Your task to perform on an android device: Add macbook pro 15 inch to the cart on target.com Image 0: 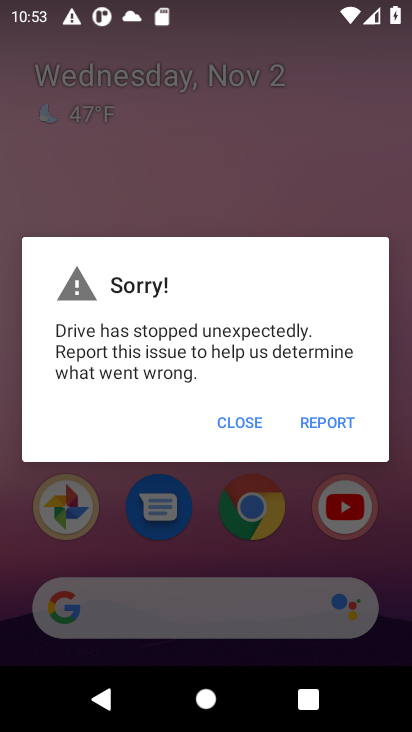
Step 0: press home button
Your task to perform on an android device: Add macbook pro 15 inch to the cart on target.com Image 1: 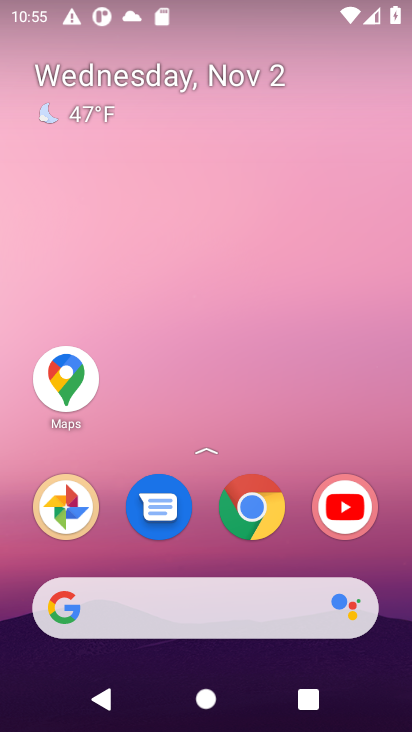
Step 1: task complete